Your task to perform on an android device: open app "Google Play services" Image 0: 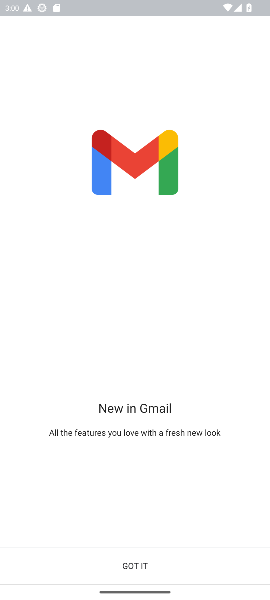
Step 0: press home button
Your task to perform on an android device: open app "Google Play services" Image 1: 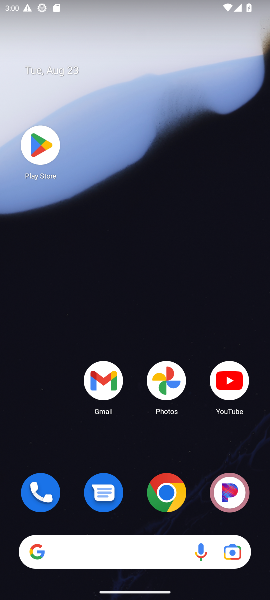
Step 1: click (45, 141)
Your task to perform on an android device: open app "Google Play services" Image 2: 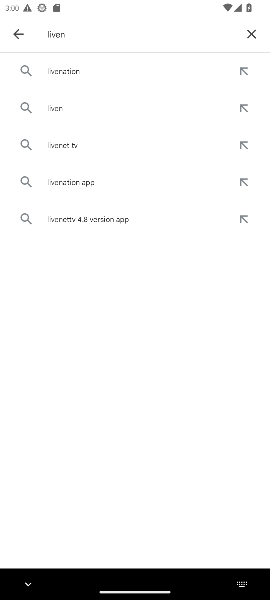
Step 2: click (241, 38)
Your task to perform on an android device: open app "Google Play services" Image 3: 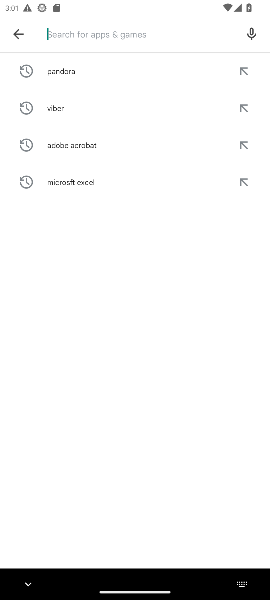
Step 3: type "google paly"
Your task to perform on an android device: open app "Google Play services" Image 4: 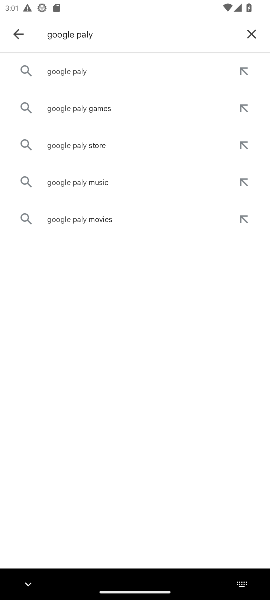
Step 4: click (122, 57)
Your task to perform on an android device: open app "Google Play services" Image 5: 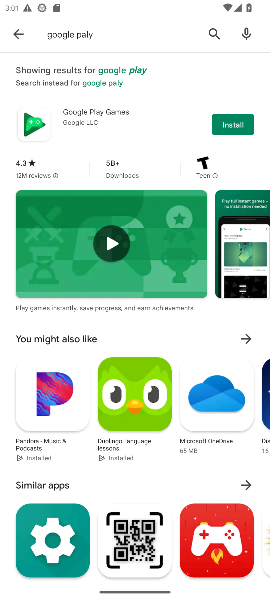
Step 5: click (218, 118)
Your task to perform on an android device: open app "Google Play services" Image 6: 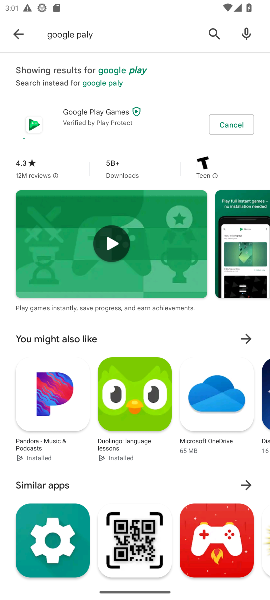
Step 6: task complete